Your task to perform on an android device: Open calendar and show me the third week of next month Image 0: 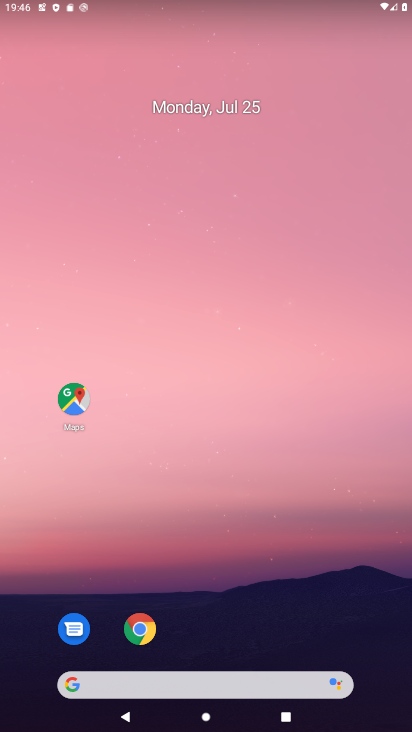
Step 0: drag from (78, 639) to (306, 219)
Your task to perform on an android device: Open calendar and show me the third week of next month Image 1: 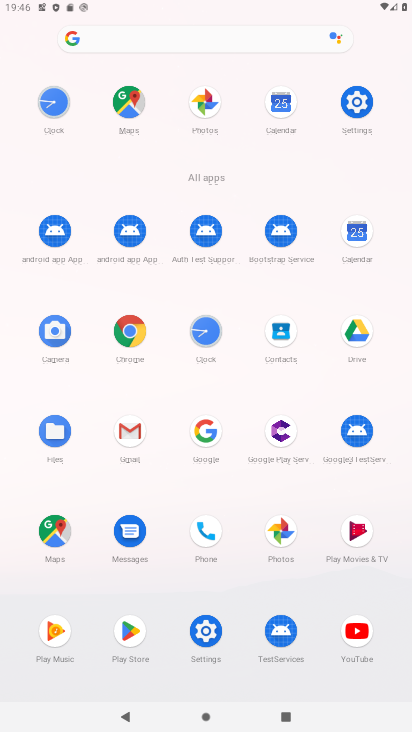
Step 1: click (358, 233)
Your task to perform on an android device: Open calendar and show me the third week of next month Image 2: 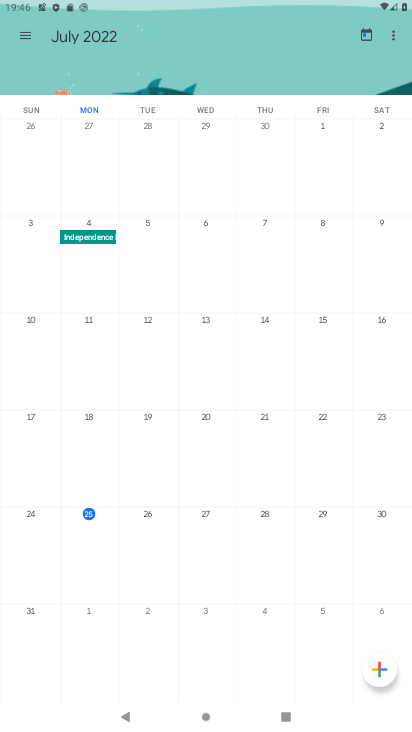
Step 2: drag from (394, 377) to (8, 370)
Your task to perform on an android device: Open calendar and show me the third week of next month Image 3: 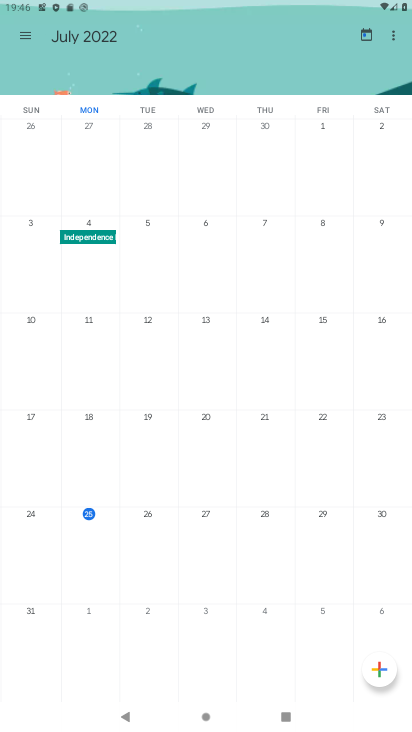
Step 3: drag from (390, 362) to (8, 332)
Your task to perform on an android device: Open calendar and show me the third week of next month Image 4: 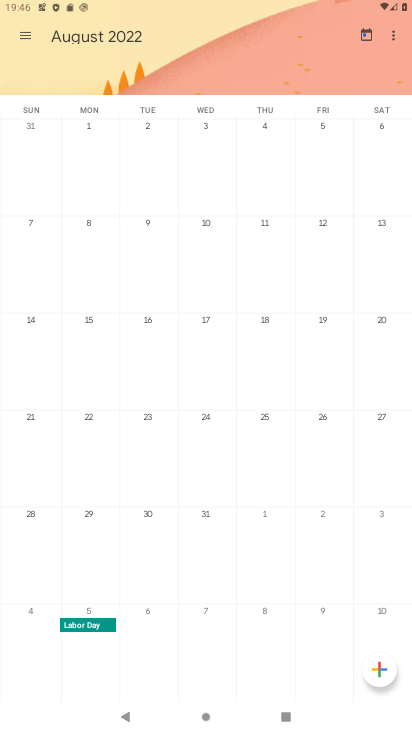
Step 4: click (82, 328)
Your task to perform on an android device: Open calendar and show me the third week of next month Image 5: 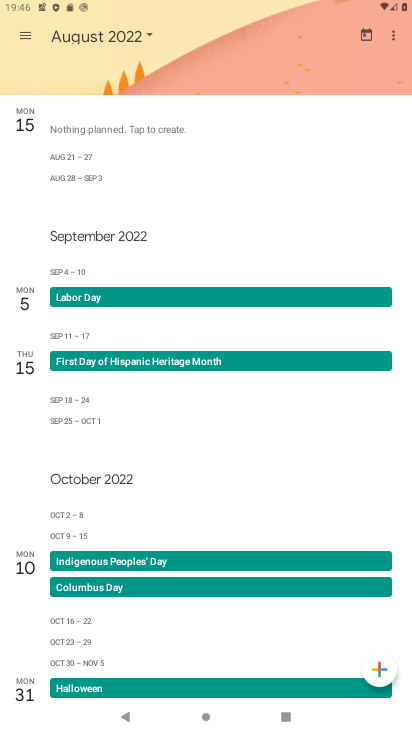
Step 5: task complete